Your task to perform on an android device: check data usage Image 0: 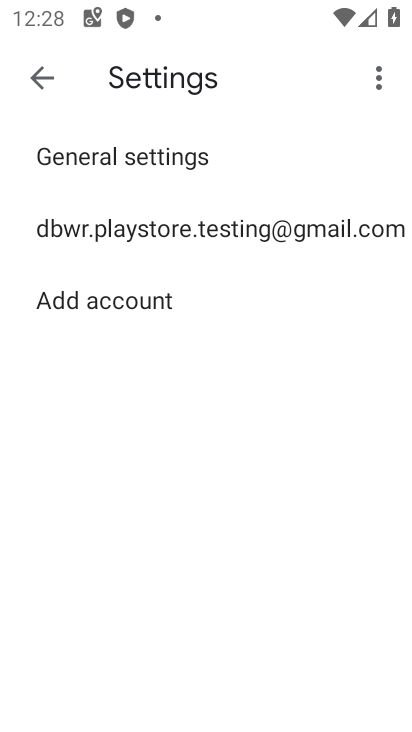
Step 0: press home button
Your task to perform on an android device: check data usage Image 1: 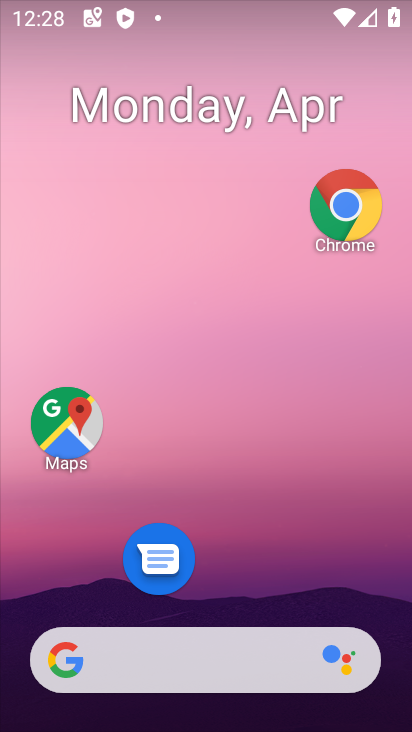
Step 1: drag from (255, 568) to (267, 108)
Your task to perform on an android device: check data usage Image 2: 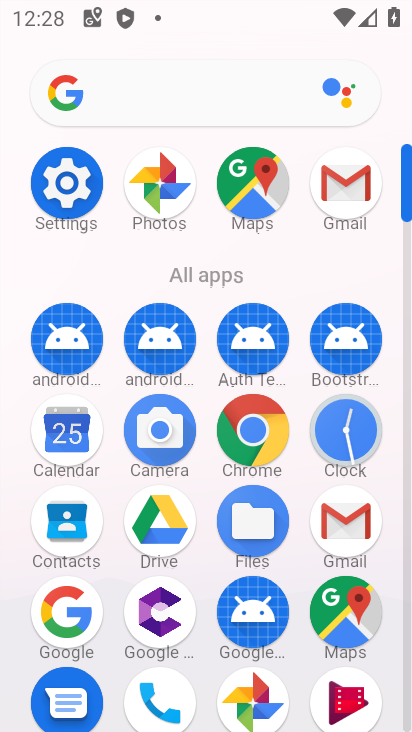
Step 2: click (80, 210)
Your task to perform on an android device: check data usage Image 3: 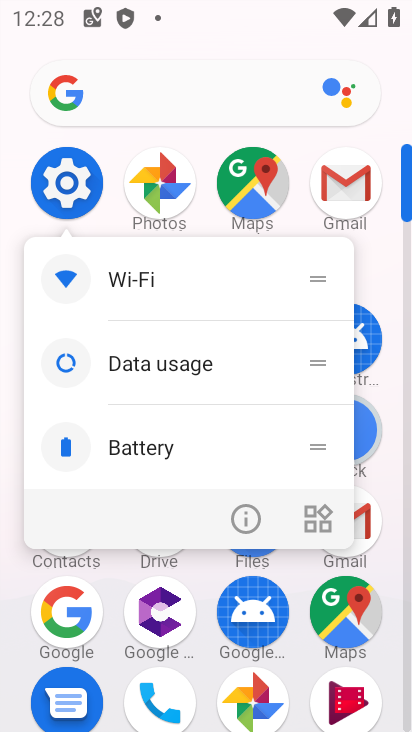
Step 3: click (242, 516)
Your task to perform on an android device: check data usage Image 4: 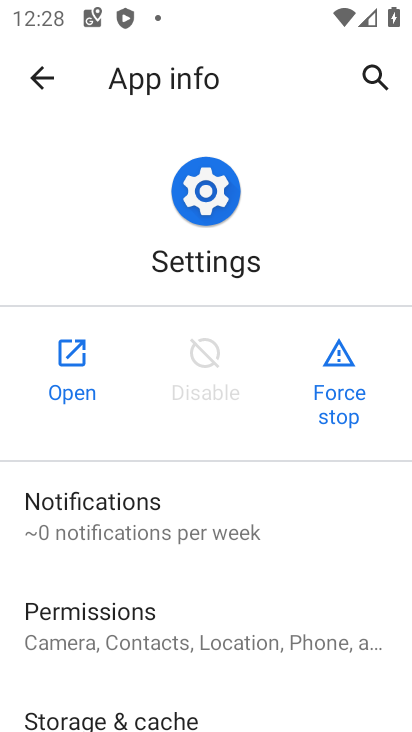
Step 4: click (87, 383)
Your task to perform on an android device: check data usage Image 5: 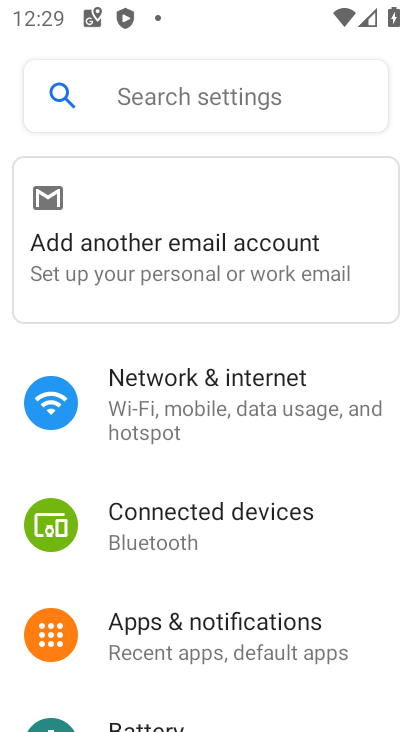
Step 5: drag from (204, 550) to (250, 363)
Your task to perform on an android device: check data usage Image 6: 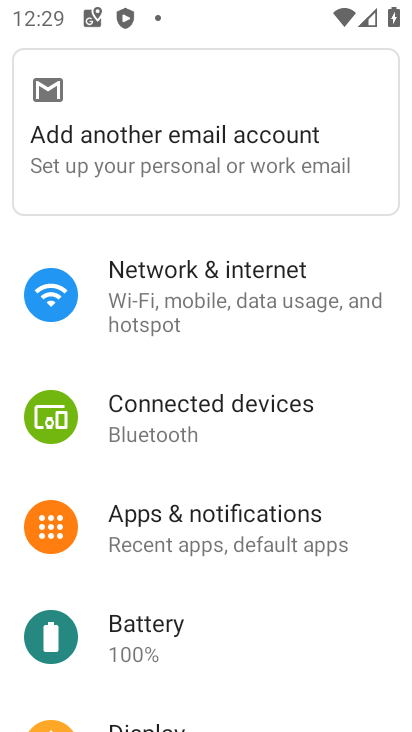
Step 6: click (246, 314)
Your task to perform on an android device: check data usage Image 7: 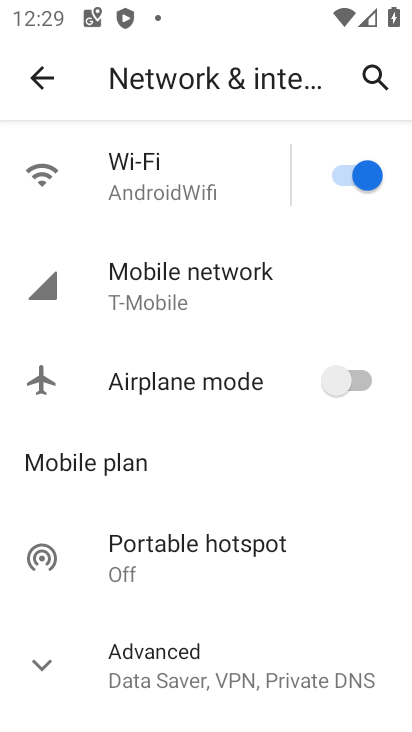
Step 7: click (207, 301)
Your task to perform on an android device: check data usage Image 8: 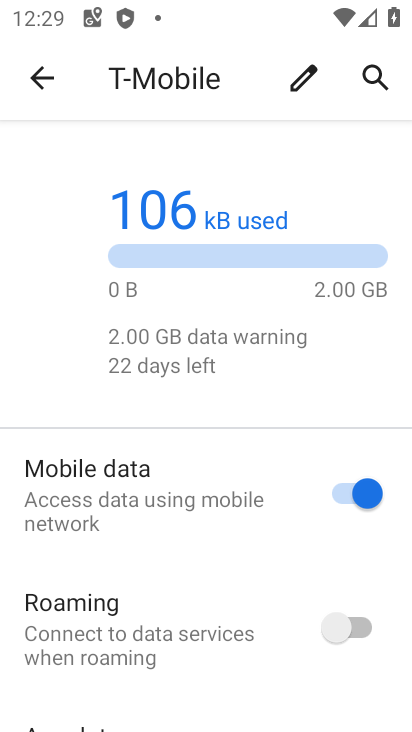
Step 8: drag from (164, 550) to (196, 426)
Your task to perform on an android device: check data usage Image 9: 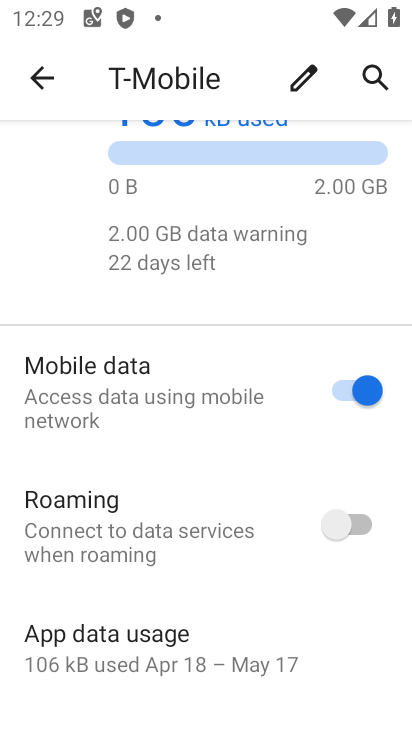
Step 9: click (232, 225)
Your task to perform on an android device: check data usage Image 10: 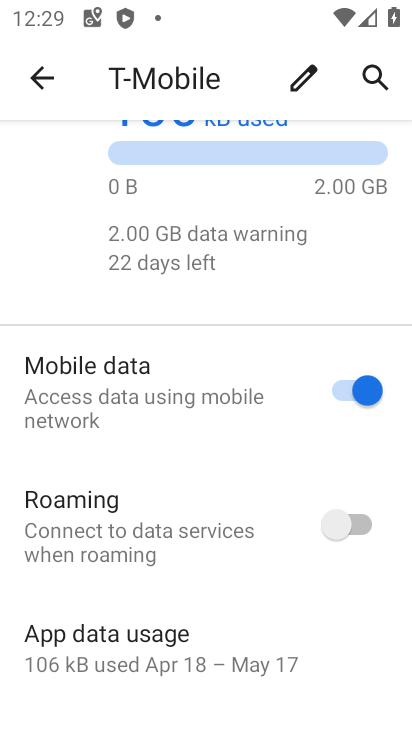
Step 10: drag from (163, 618) to (225, 387)
Your task to perform on an android device: check data usage Image 11: 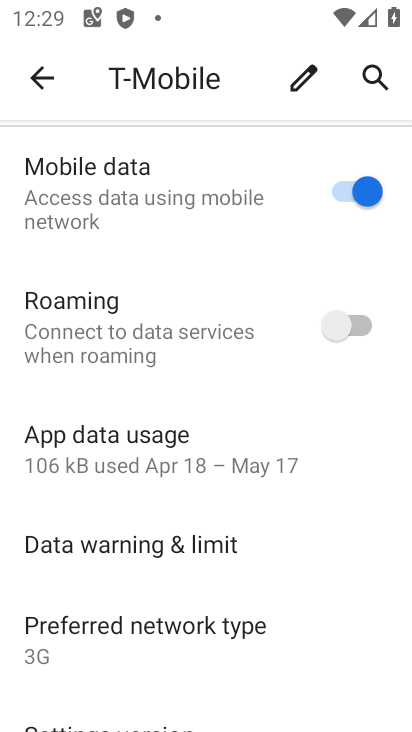
Step 11: click (198, 453)
Your task to perform on an android device: check data usage Image 12: 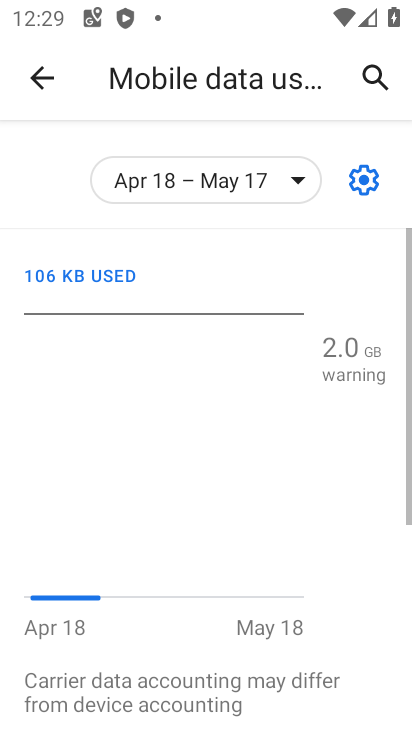
Step 12: task complete